Your task to perform on an android device: Clear all items from cart on amazon. Search for usb-c to usb-b on amazon, select the first entry, add it to the cart, then select checkout. Image 0: 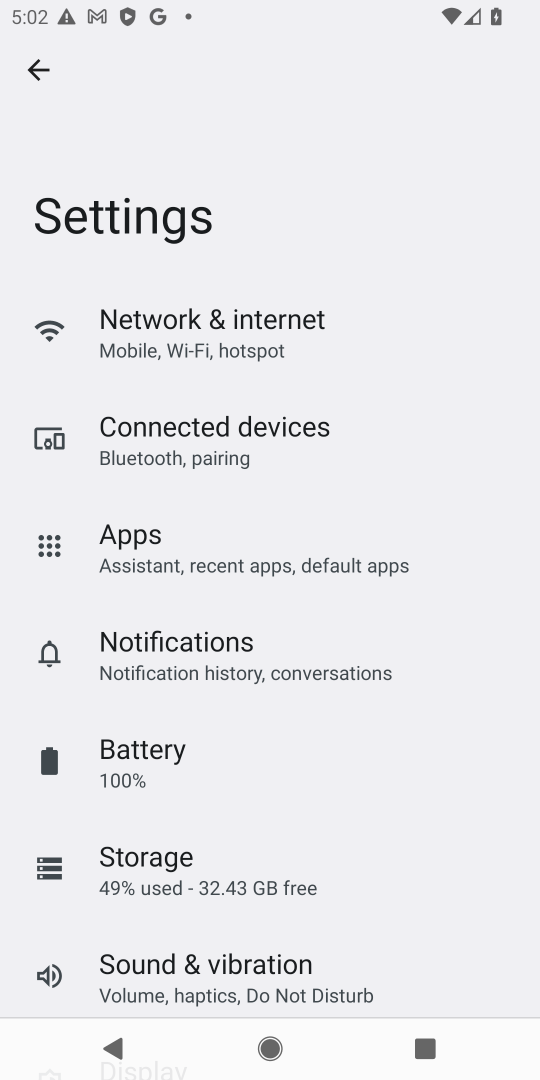
Step 0: press home button
Your task to perform on an android device: Clear all items from cart on amazon. Search for usb-c to usb-b on amazon, select the first entry, add it to the cart, then select checkout. Image 1: 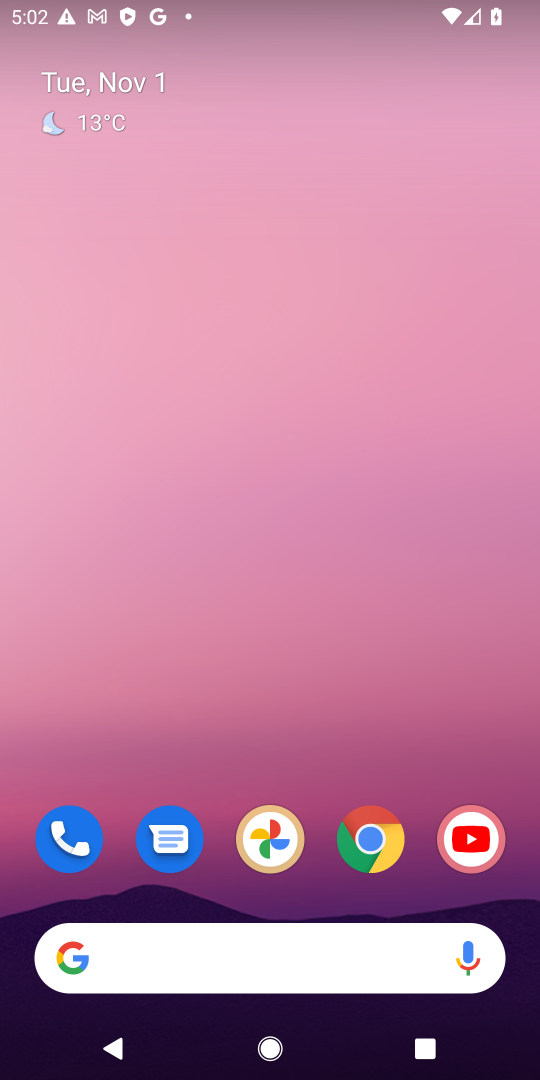
Step 1: drag from (332, 883) to (397, 230)
Your task to perform on an android device: Clear all items from cart on amazon. Search for usb-c to usb-b on amazon, select the first entry, add it to the cart, then select checkout. Image 2: 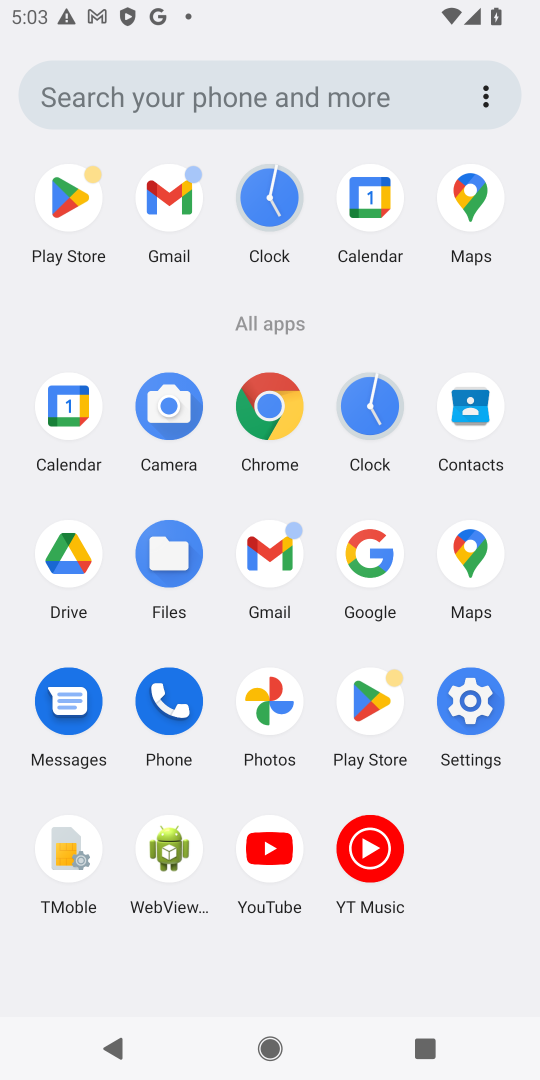
Step 2: click (272, 413)
Your task to perform on an android device: Clear all items from cart on amazon. Search for usb-c to usb-b on amazon, select the first entry, add it to the cart, then select checkout. Image 3: 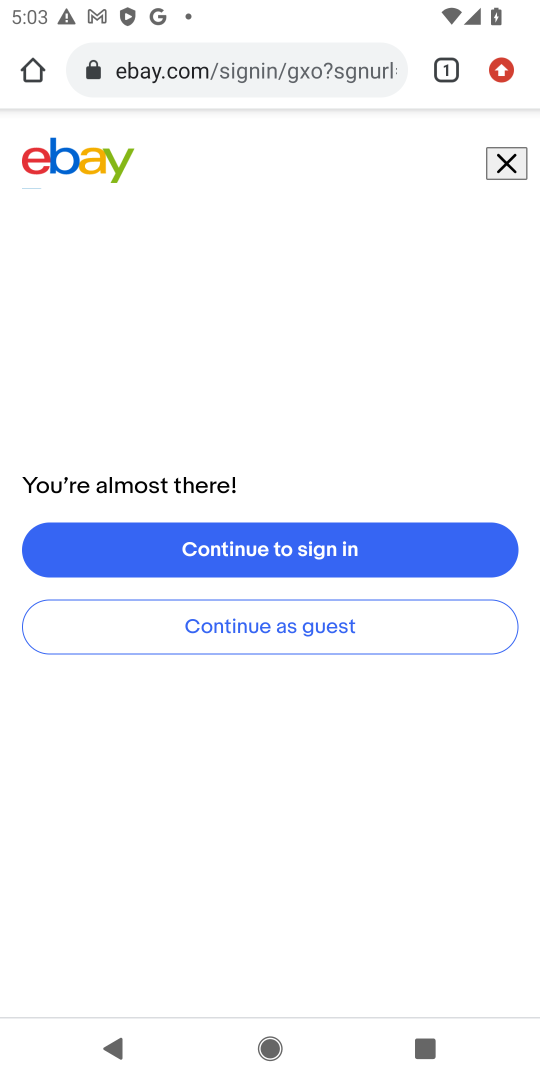
Step 3: click (352, 61)
Your task to perform on an android device: Clear all items from cart on amazon. Search for usb-c to usb-b on amazon, select the first entry, add it to the cart, then select checkout. Image 4: 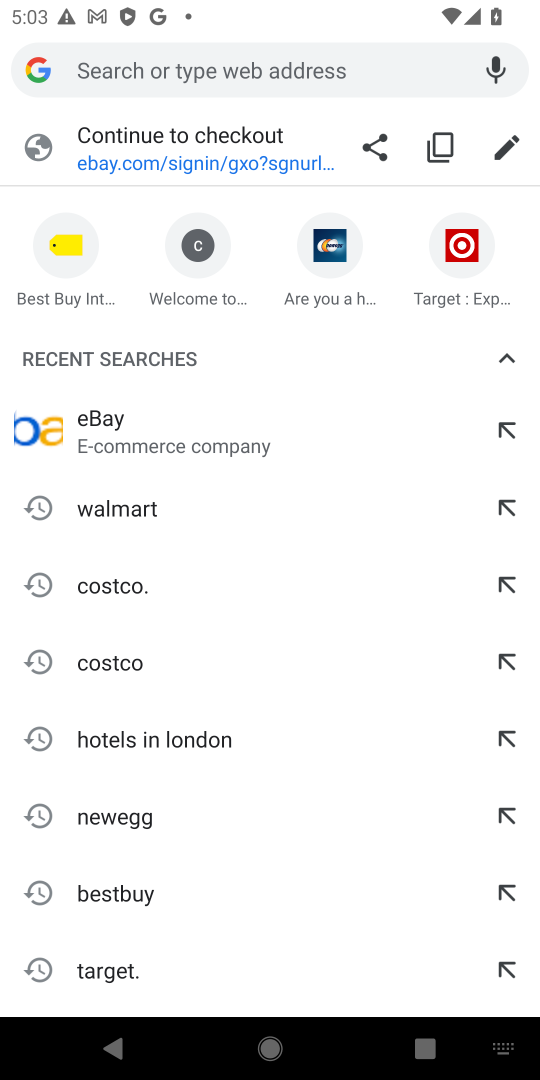
Step 4: type "amazon.com"
Your task to perform on an android device: Clear all items from cart on amazon. Search for usb-c to usb-b on amazon, select the first entry, add it to the cart, then select checkout. Image 5: 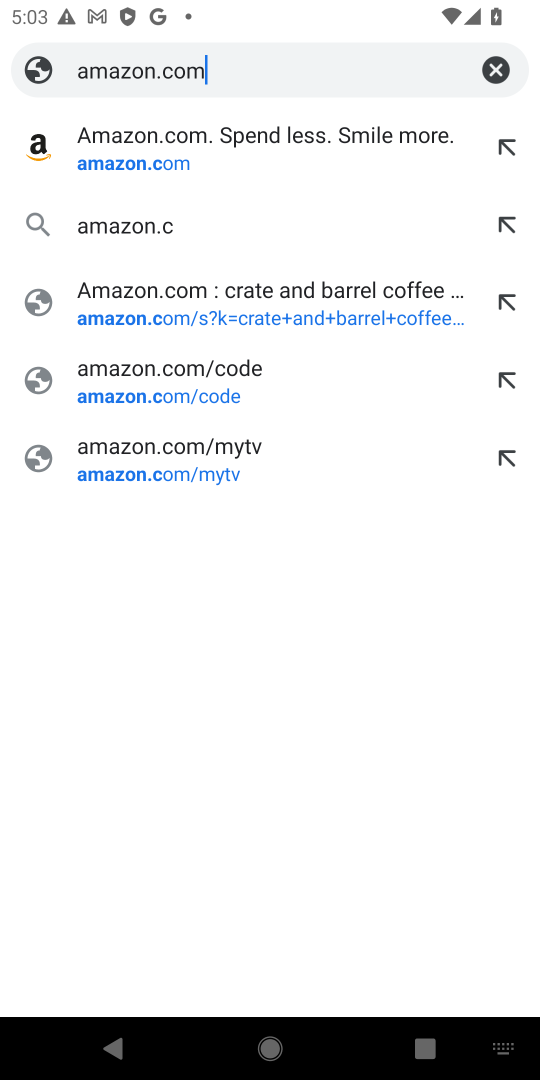
Step 5: press enter
Your task to perform on an android device: Clear all items from cart on amazon. Search for usb-c to usb-b on amazon, select the first entry, add it to the cart, then select checkout. Image 6: 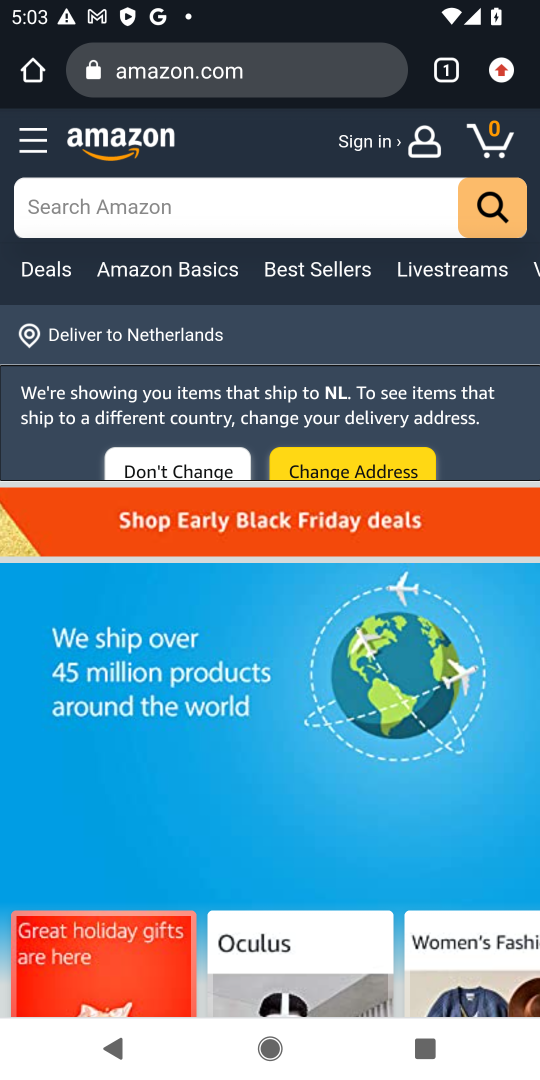
Step 6: click (488, 142)
Your task to perform on an android device: Clear all items from cart on amazon. Search for usb-c to usb-b on amazon, select the first entry, add it to the cart, then select checkout. Image 7: 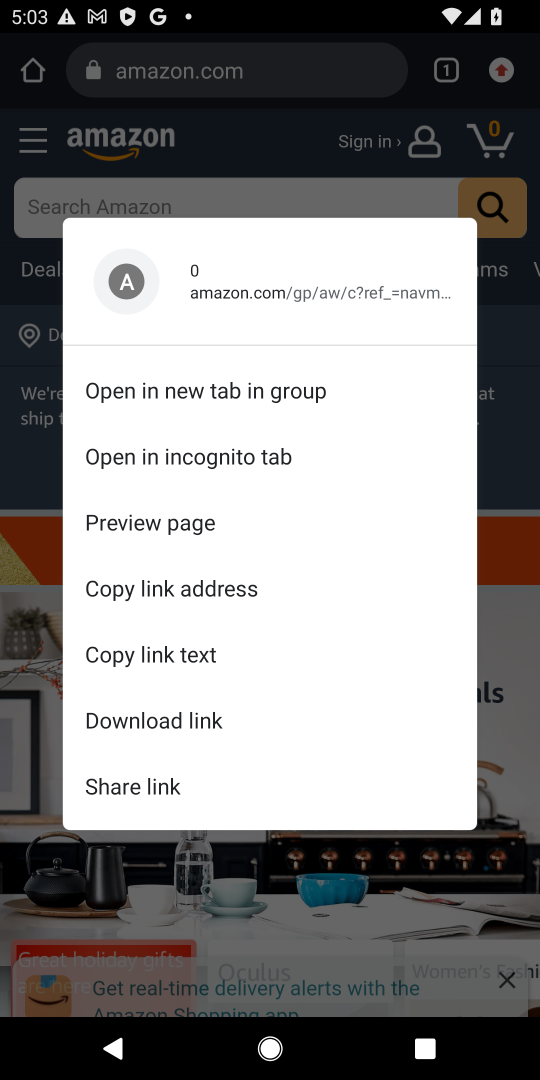
Step 7: click (511, 144)
Your task to perform on an android device: Clear all items from cart on amazon. Search for usb-c to usb-b on amazon, select the first entry, add it to the cart, then select checkout. Image 8: 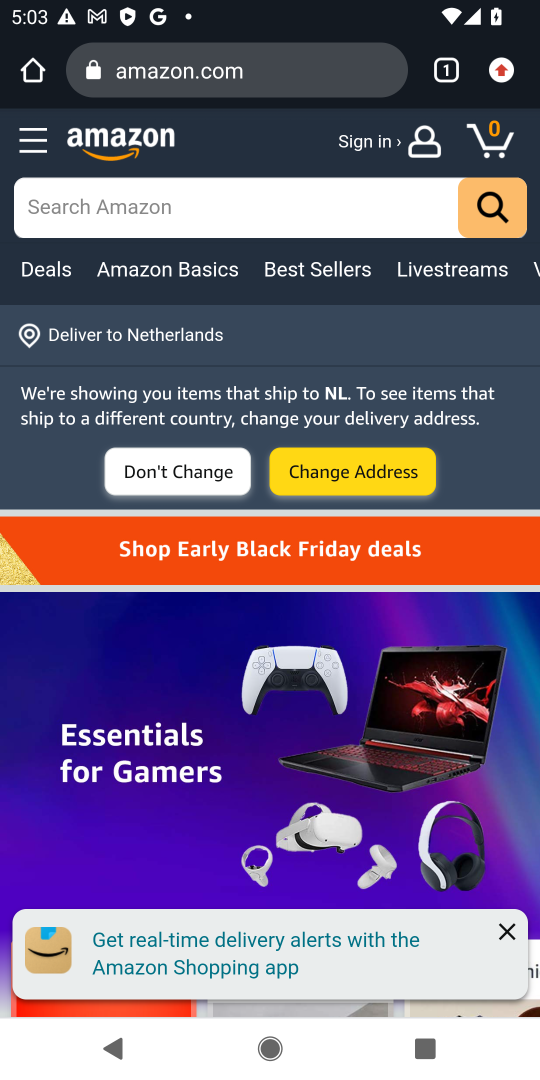
Step 8: click (506, 141)
Your task to perform on an android device: Clear all items from cart on amazon. Search for usb-c to usb-b on amazon, select the first entry, add it to the cart, then select checkout. Image 9: 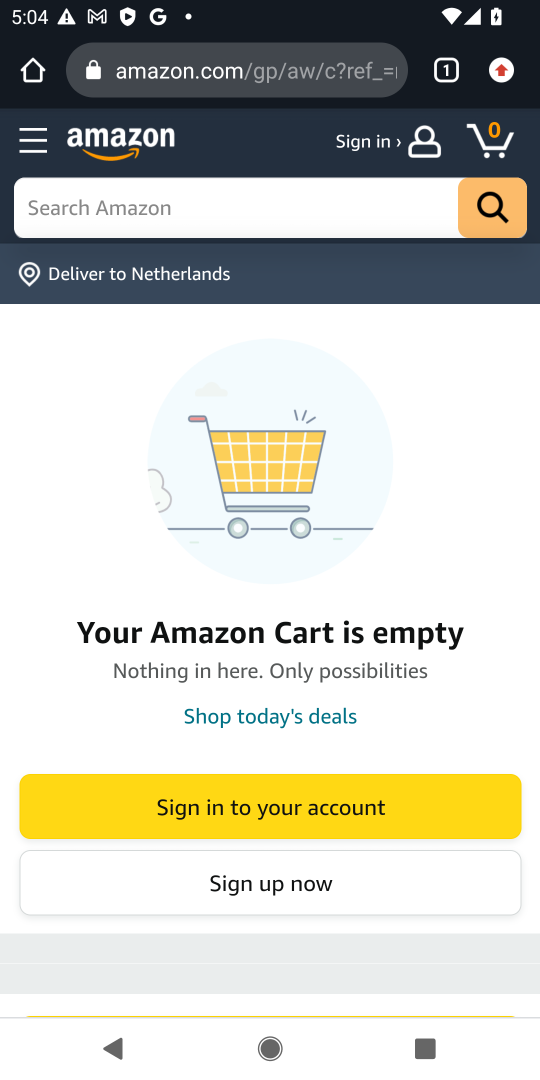
Step 9: click (330, 217)
Your task to perform on an android device: Clear all items from cart on amazon. Search for usb-c to usb-b on amazon, select the first entry, add it to the cart, then select checkout. Image 10: 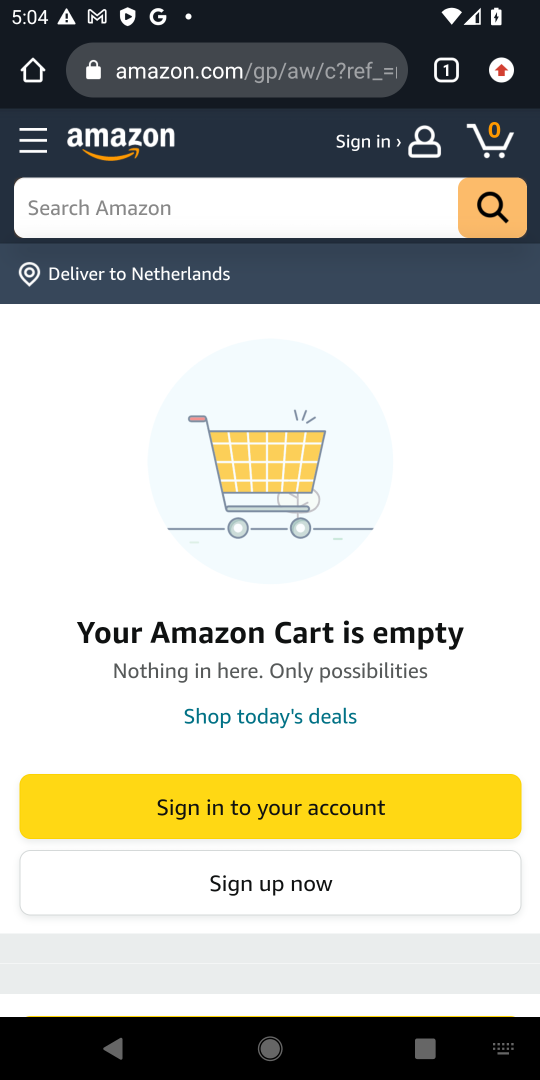
Step 10: type "usb-c to usb-b"
Your task to perform on an android device: Clear all items from cart on amazon. Search for usb-c to usb-b on amazon, select the first entry, add it to the cart, then select checkout. Image 11: 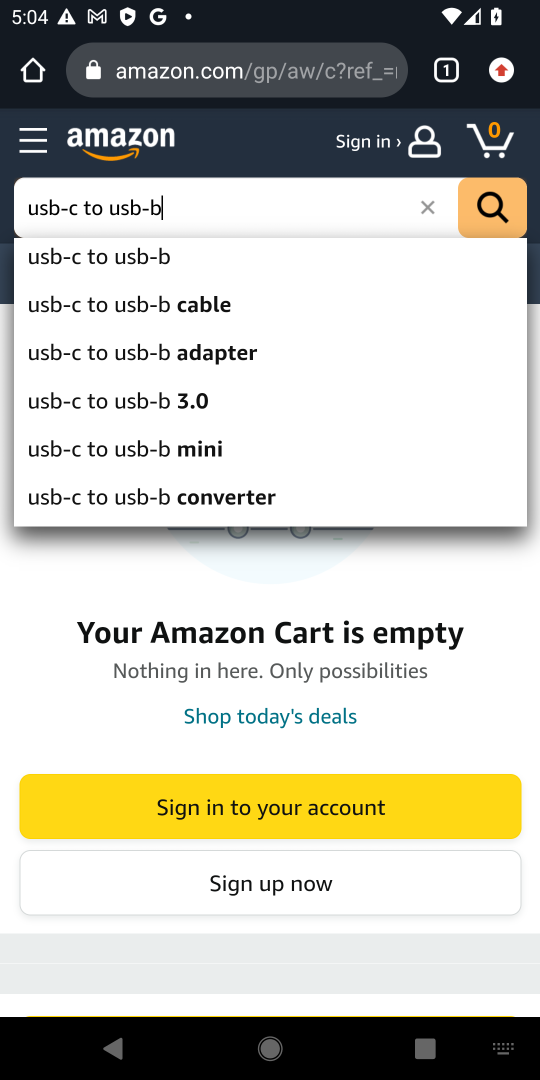
Step 11: press enter
Your task to perform on an android device: Clear all items from cart on amazon. Search for usb-c to usb-b on amazon, select the first entry, add it to the cart, then select checkout. Image 12: 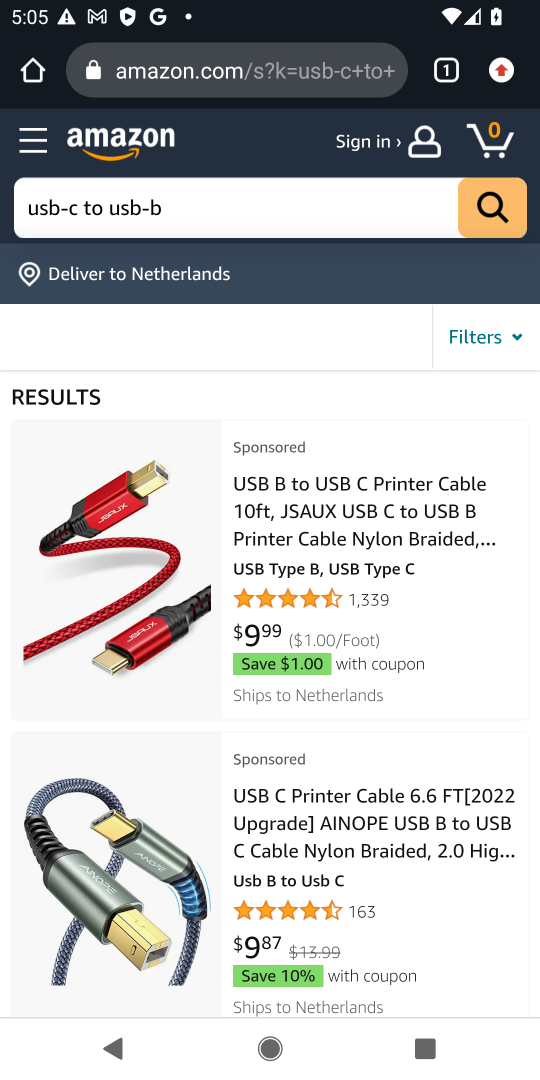
Step 12: drag from (230, 881) to (302, 60)
Your task to perform on an android device: Clear all items from cart on amazon. Search for usb-c to usb-b on amazon, select the first entry, add it to the cart, then select checkout. Image 13: 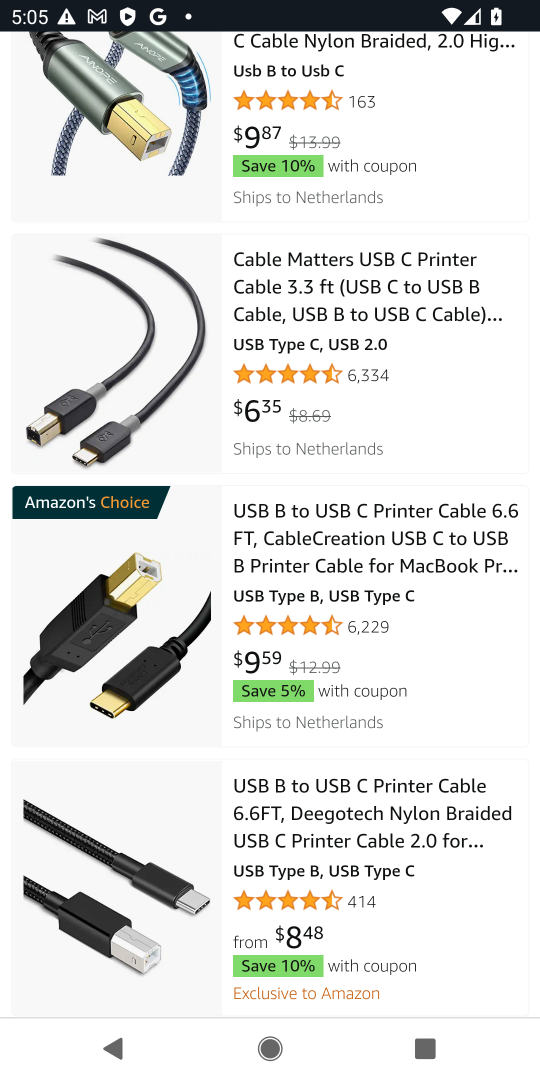
Step 13: drag from (280, 912) to (415, 339)
Your task to perform on an android device: Clear all items from cart on amazon. Search for usb-c to usb-b on amazon, select the first entry, add it to the cart, then select checkout. Image 14: 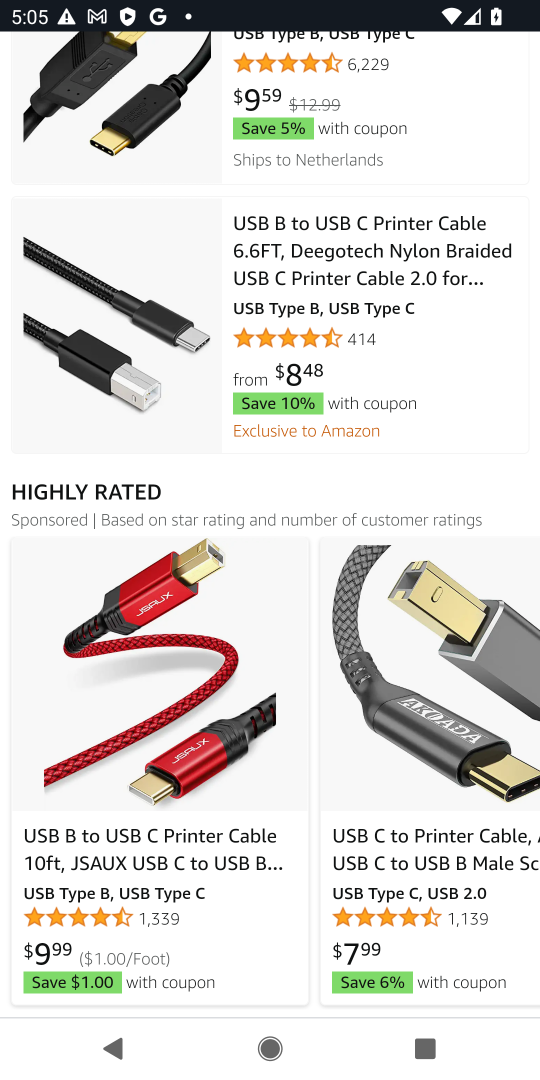
Step 14: drag from (254, 858) to (311, 471)
Your task to perform on an android device: Clear all items from cart on amazon. Search for usb-c to usb-b on amazon, select the first entry, add it to the cart, then select checkout. Image 15: 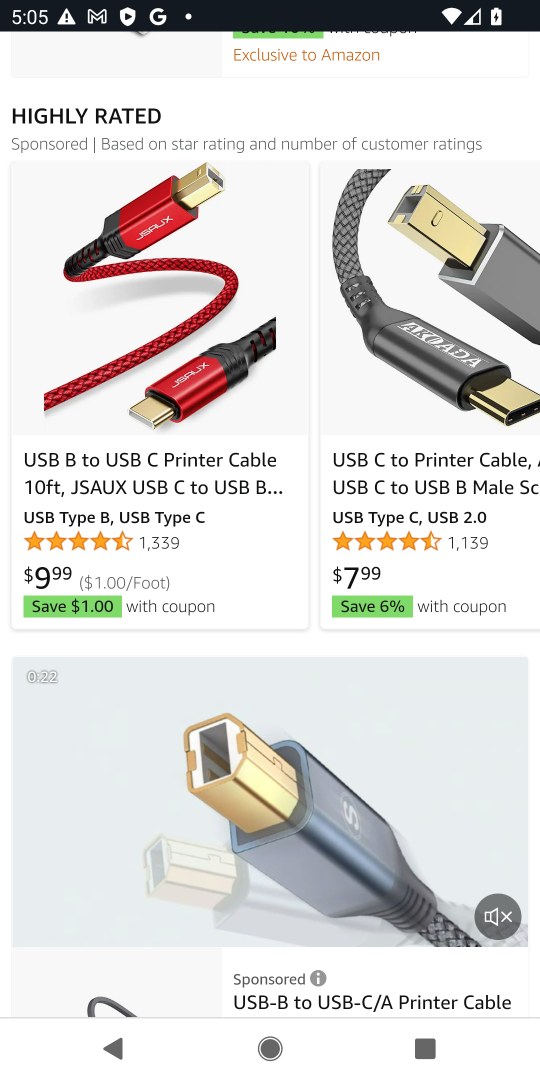
Step 15: drag from (410, 493) to (187, 675)
Your task to perform on an android device: Clear all items from cart on amazon. Search for usb-c to usb-b on amazon, select the first entry, add it to the cart, then select checkout. Image 16: 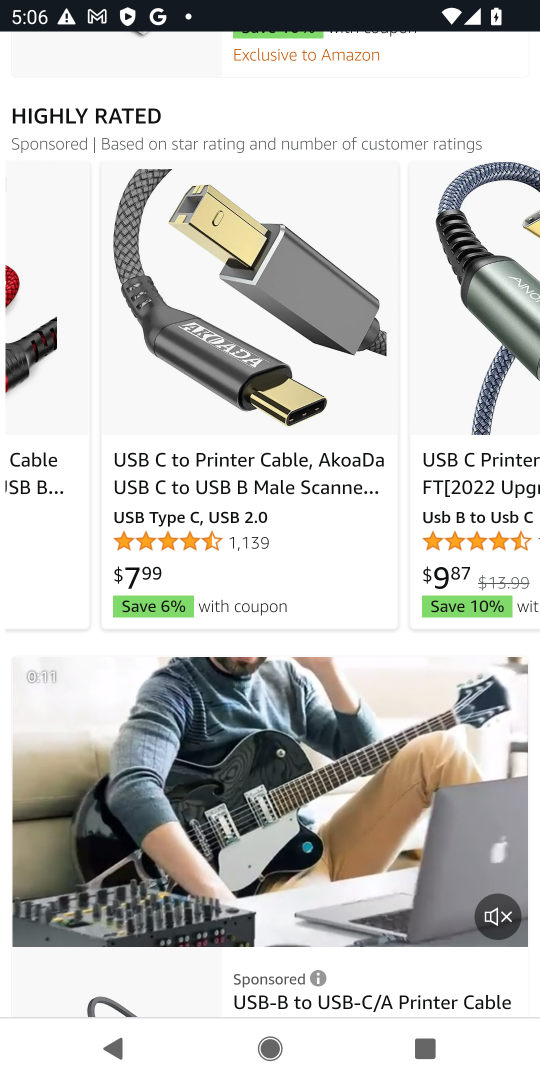
Step 16: drag from (255, 662) to (261, 571)
Your task to perform on an android device: Clear all items from cart on amazon. Search for usb-c to usb-b on amazon, select the first entry, add it to the cart, then select checkout. Image 17: 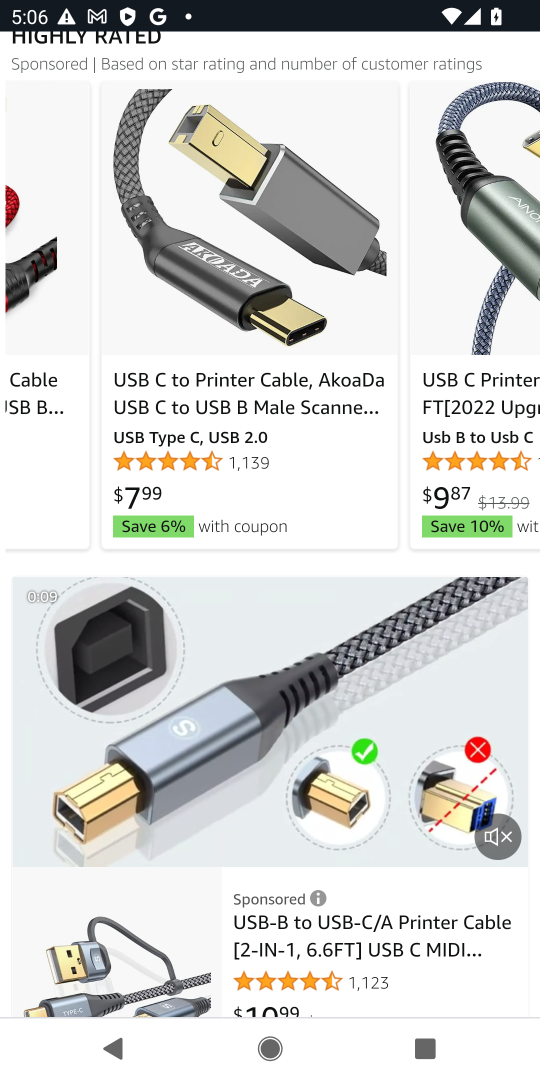
Step 17: drag from (360, 381) to (103, 361)
Your task to perform on an android device: Clear all items from cart on amazon. Search for usb-c to usb-b on amazon, select the first entry, add it to the cart, then select checkout. Image 18: 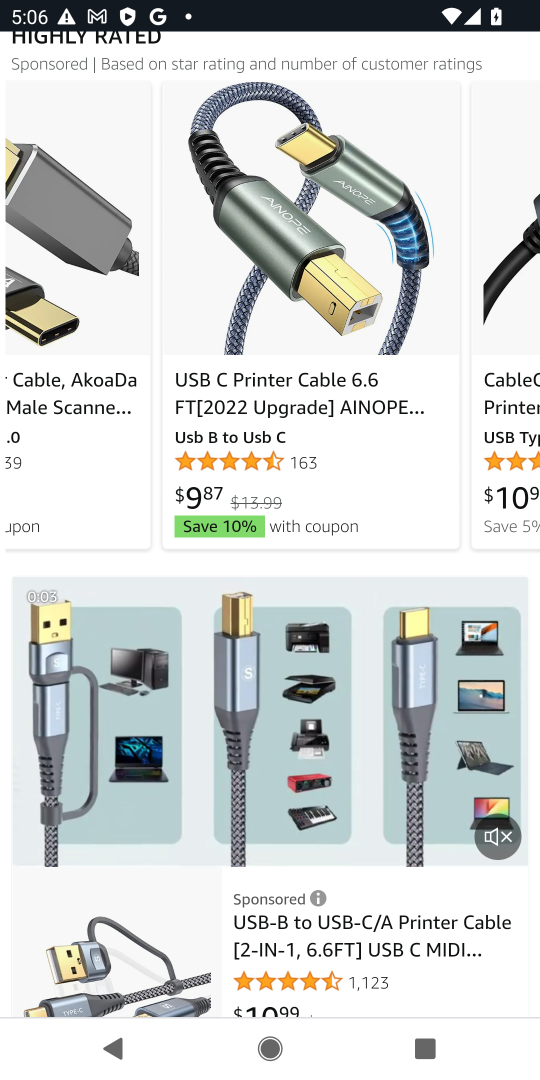
Step 18: drag from (276, 720) to (415, 108)
Your task to perform on an android device: Clear all items from cart on amazon. Search for usb-c to usb-b on amazon, select the first entry, add it to the cart, then select checkout. Image 19: 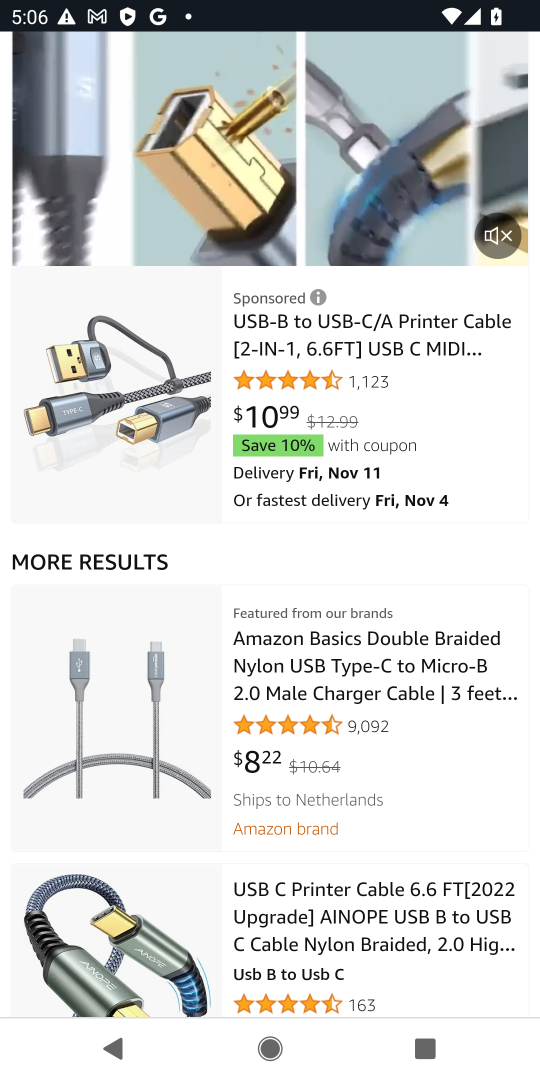
Step 19: drag from (332, 149) to (213, 729)
Your task to perform on an android device: Clear all items from cart on amazon. Search for usb-c to usb-b on amazon, select the first entry, add it to the cart, then select checkout. Image 20: 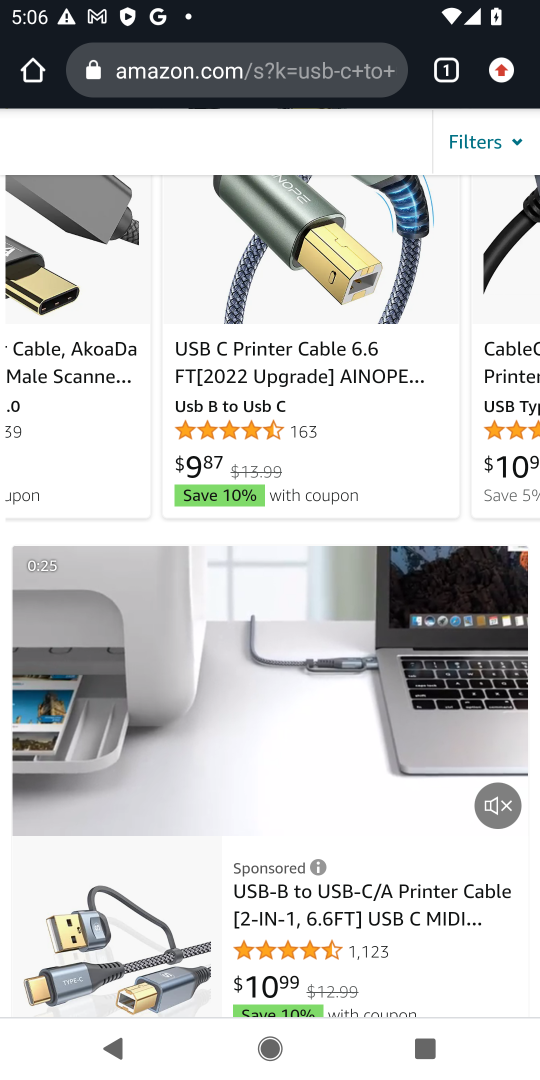
Step 20: drag from (284, 359) to (287, 738)
Your task to perform on an android device: Clear all items from cart on amazon. Search for usb-c to usb-b on amazon, select the first entry, add it to the cart, then select checkout. Image 21: 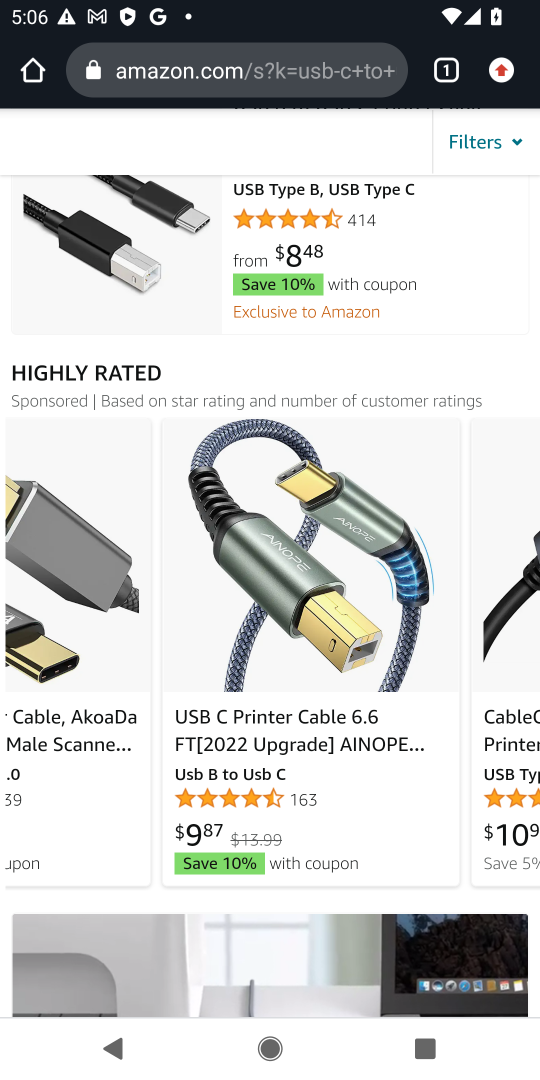
Step 21: drag from (327, 360) to (393, 777)
Your task to perform on an android device: Clear all items from cart on amazon. Search for usb-c to usb-b on amazon, select the first entry, add it to the cart, then select checkout. Image 22: 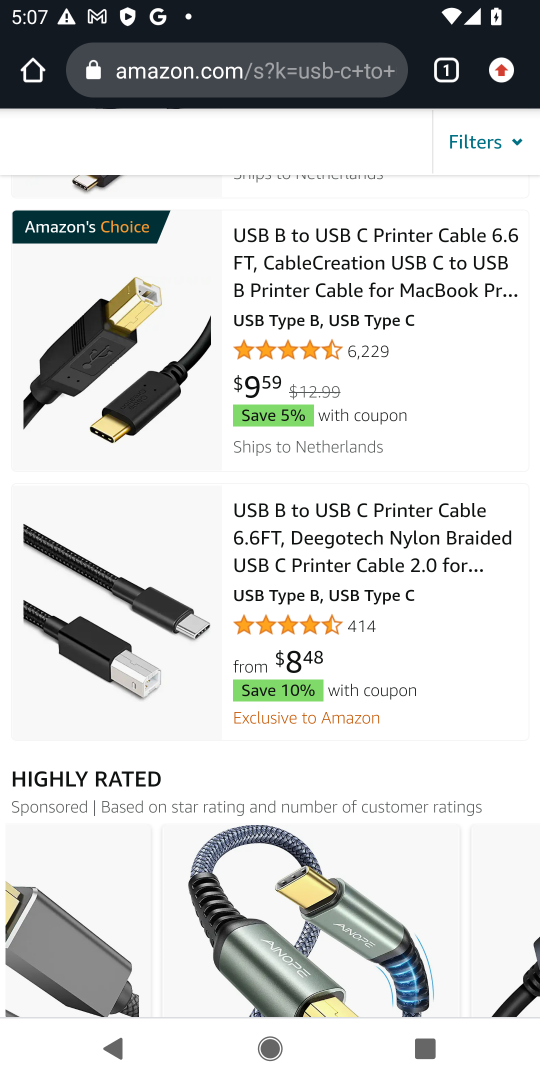
Step 22: drag from (395, 281) to (304, 598)
Your task to perform on an android device: Clear all items from cart on amazon. Search for usb-c to usb-b on amazon, select the first entry, add it to the cart, then select checkout. Image 23: 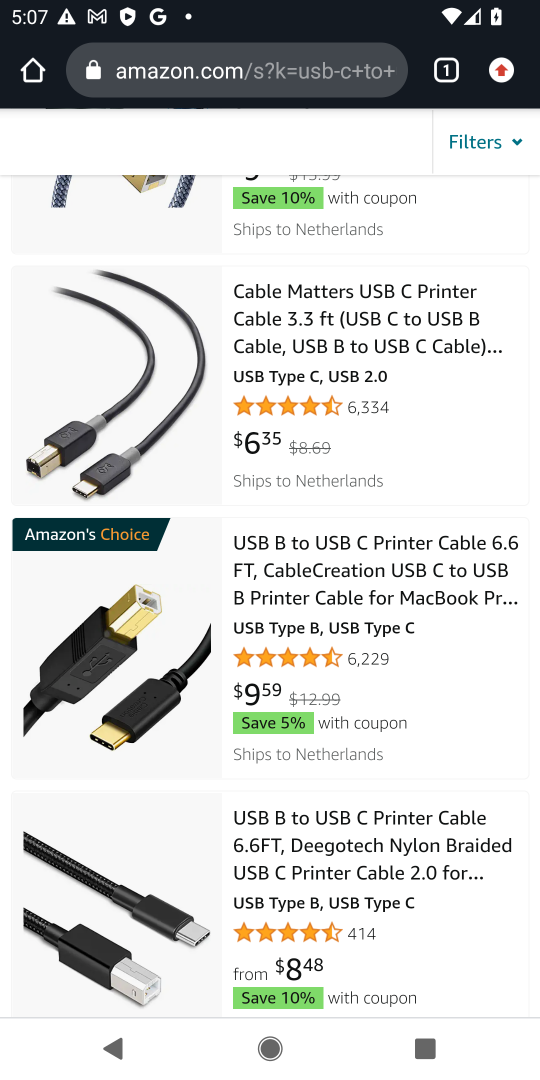
Step 23: drag from (331, 268) to (272, 589)
Your task to perform on an android device: Clear all items from cart on amazon. Search for usb-c to usb-b on amazon, select the first entry, add it to the cart, then select checkout. Image 24: 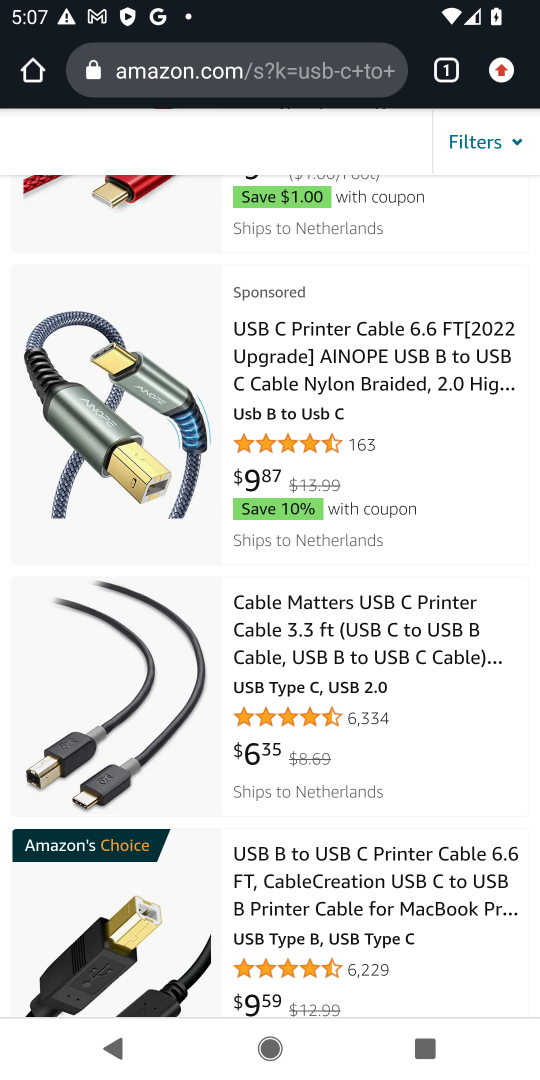
Step 24: drag from (310, 237) to (340, 60)
Your task to perform on an android device: Clear all items from cart on amazon. Search for usb-c to usb-b on amazon, select the first entry, add it to the cart, then select checkout. Image 25: 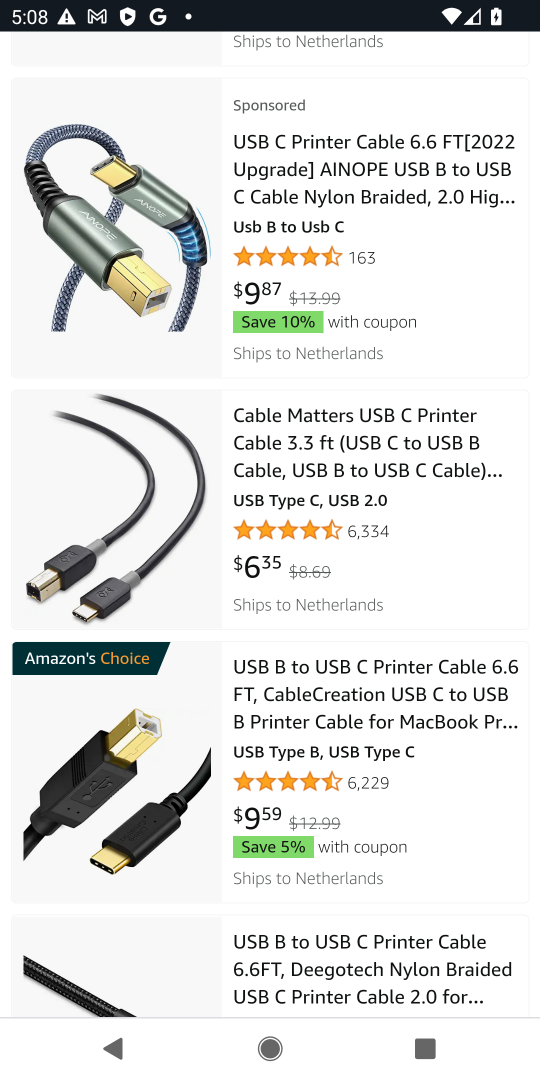
Step 25: drag from (323, 834) to (346, 541)
Your task to perform on an android device: Clear all items from cart on amazon. Search for usb-c to usb-b on amazon, select the first entry, add it to the cart, then select checkout. Image 26: 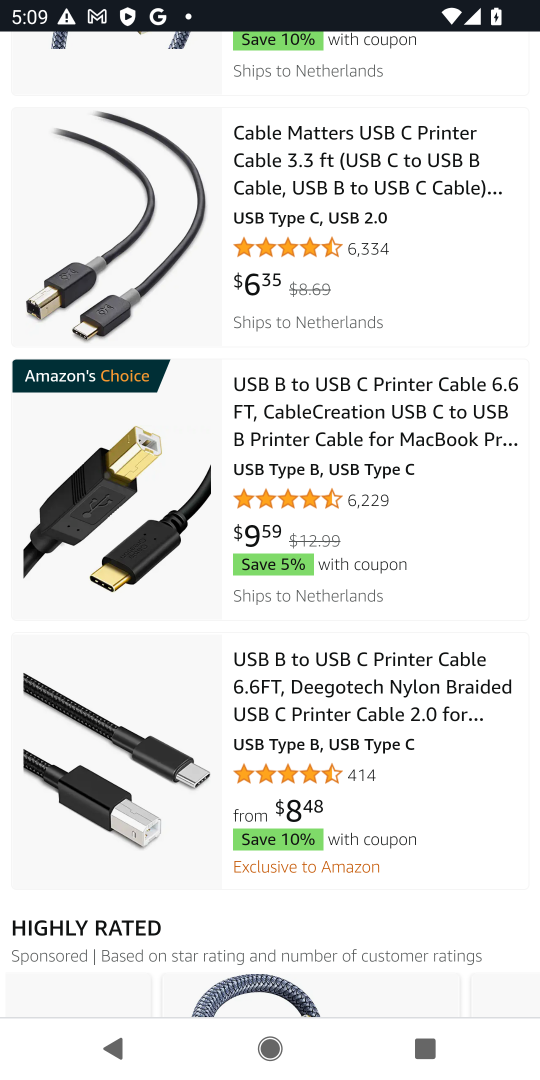
Step 26: drag from (336, 217) to (351, 737)
Your task to perform on an android device: Clear all items from cart on amazon. Search for usb-c to usb-b on amazon, select the first entry, add it to the cart, then select checkout. Image 27: 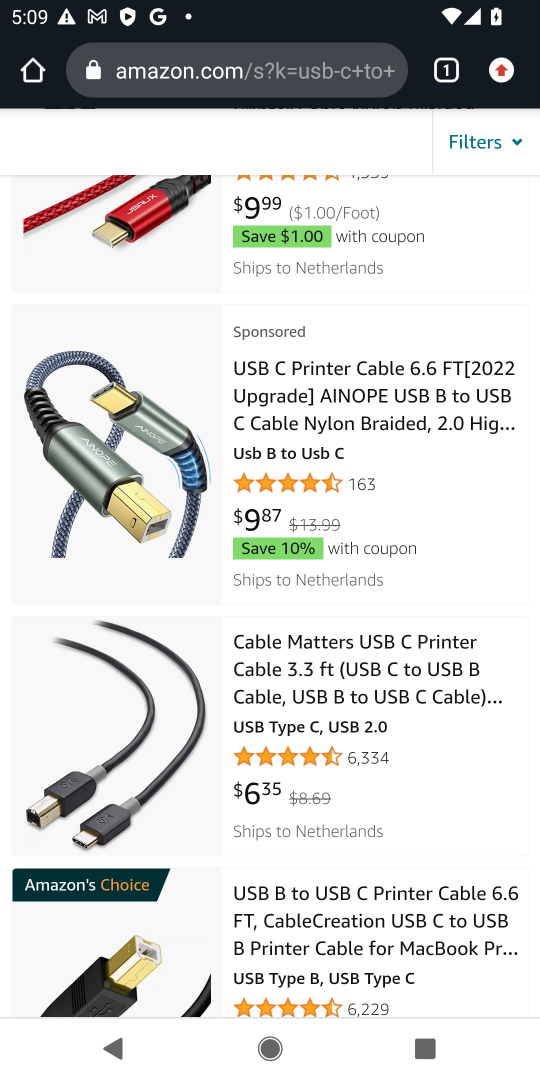
Step 27: click (109, 723)
Your task to perform on an android device: Clear all items from cart on amazon. Search for usb-c to usb-b on amazon, select the first entry, add it to the cart, then select checkout. Image 28: 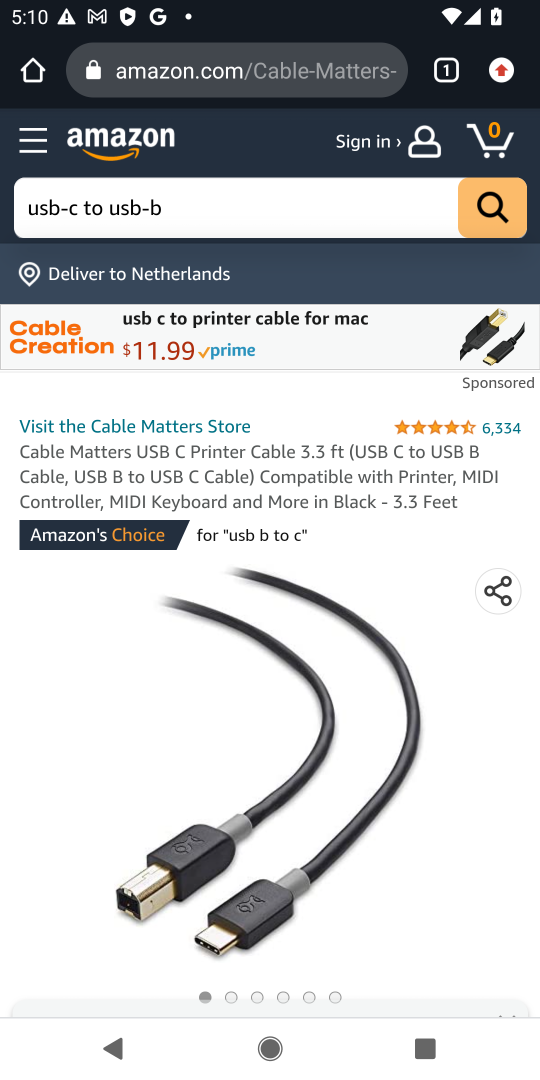
Step 28: drag from (276, 850) to (416, 209)
Your task to perform on an android device: Clear all items from cart on amazon. Search for usb-c to usb-b on amazon, select the first entry, add it to the cart, then select checkout. Image 29: 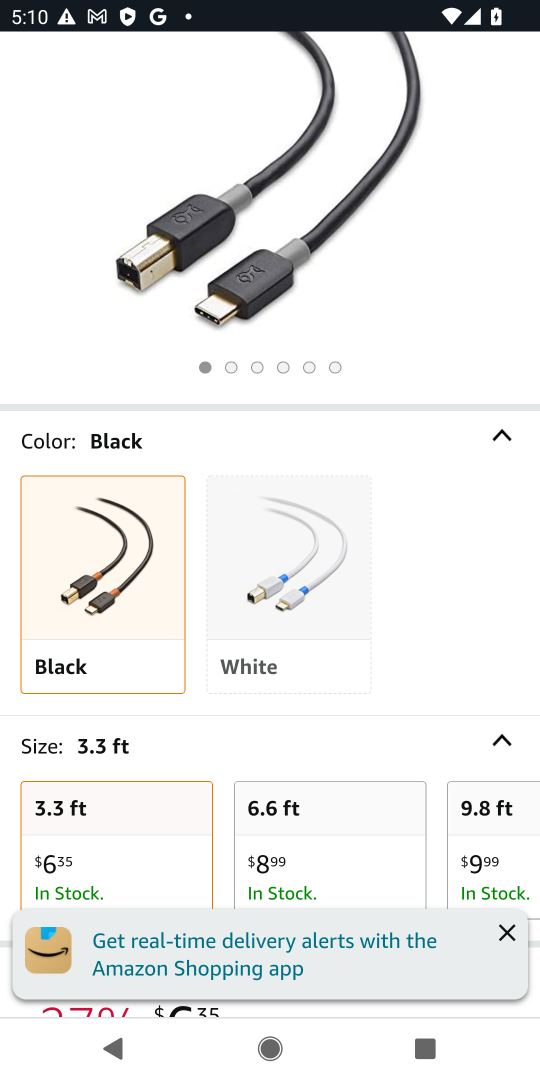
Step 29: drag from (204, 703) to (388, 110)
Your task to perform on an android device: Clear all items from cart on amazon. Search for usb-c to usb-b on amazon, select the first entry, add it to the cart, then select checkout. Image 30: 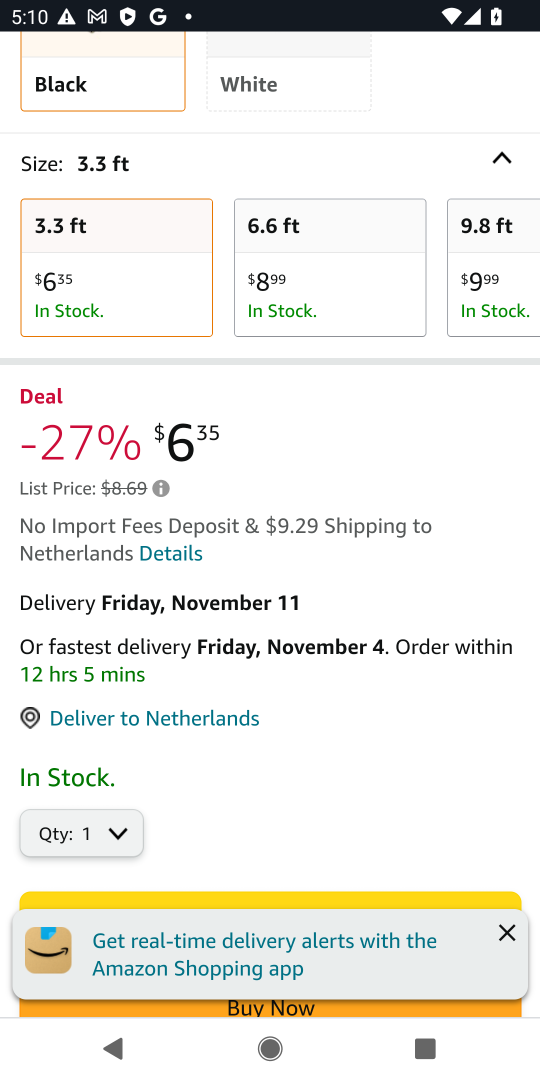
Step 30: drag from (360, 700) to (387, 102)
Your task to perform on an android device: Clear all items from cart on amazon. Search for usb-c to usb-b on amazon, select the first entry, add it to the cart, then select checkout. Image 31: 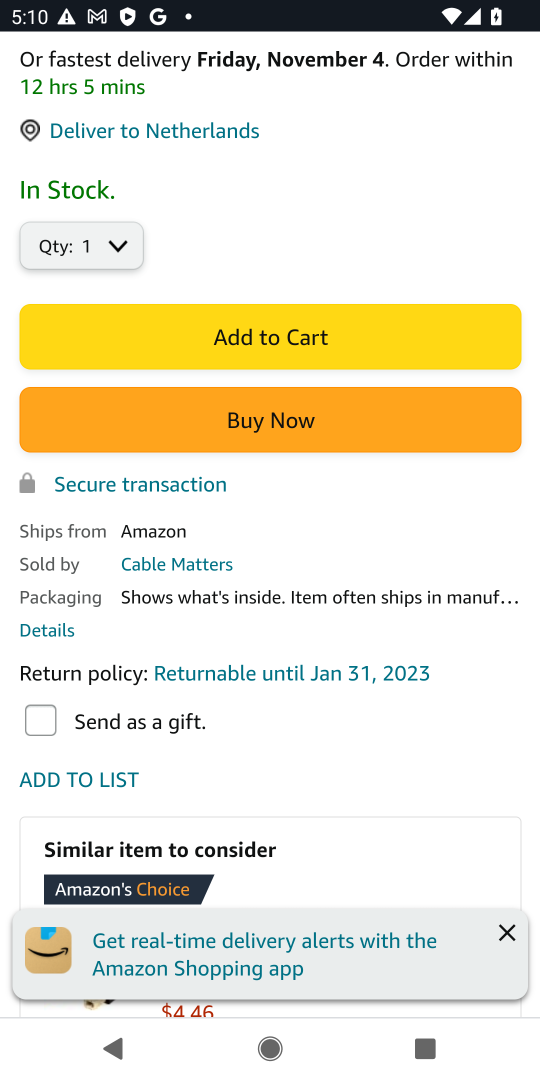
Step 31: click (331, 331)
Your task to perform on an android device: Clear all items from cart on amazon. Search for usb-c to usb-b on amazon, select the first entry, add it to the cart, then select checkout. Image 32: 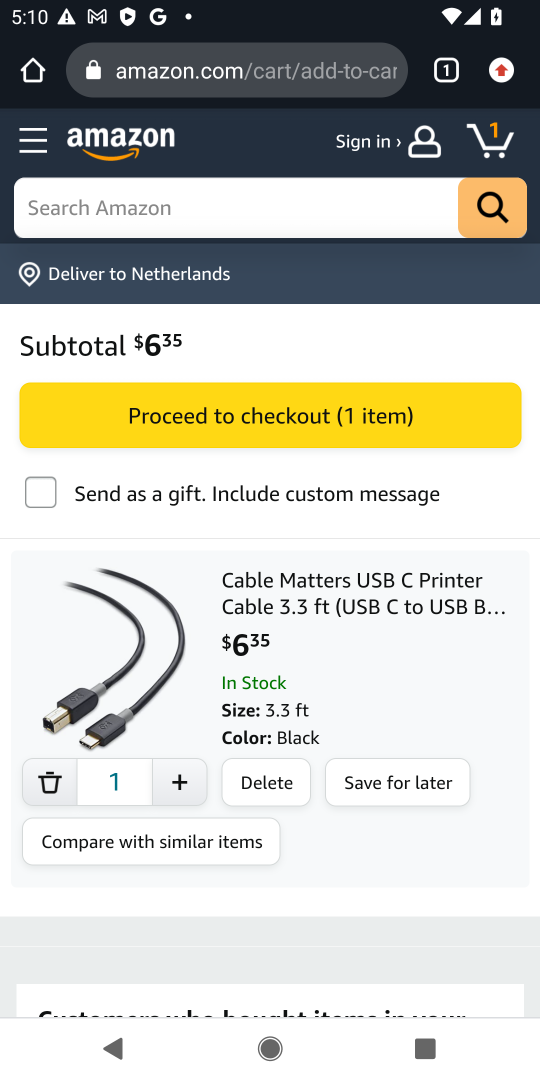
Step 32: drag from (476, 759) to (478, 699)
Your task to perform on an android device: Clear all items from cart on amazon. Search for usb-c to usb-b on amazon, select the first entry, add it to the cart, then select checkout. Image 33: 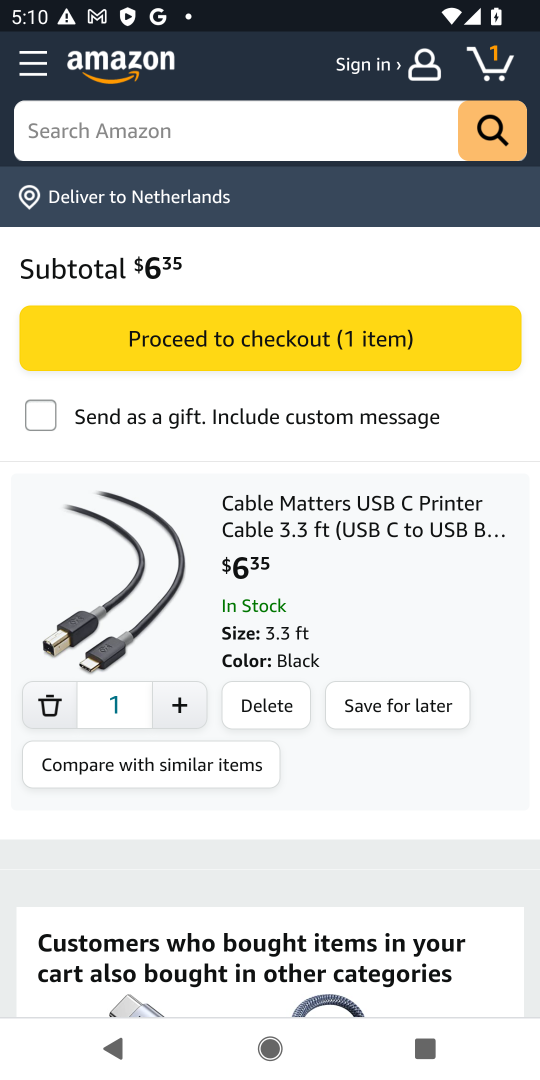
Step 33: click (374, 341)
Your task to perform on an android device: Clear all items from cart on amazon. Search for usb-c to usb-b on amazon, select the first entry, add it to the cart, then select checkout. Image 34: 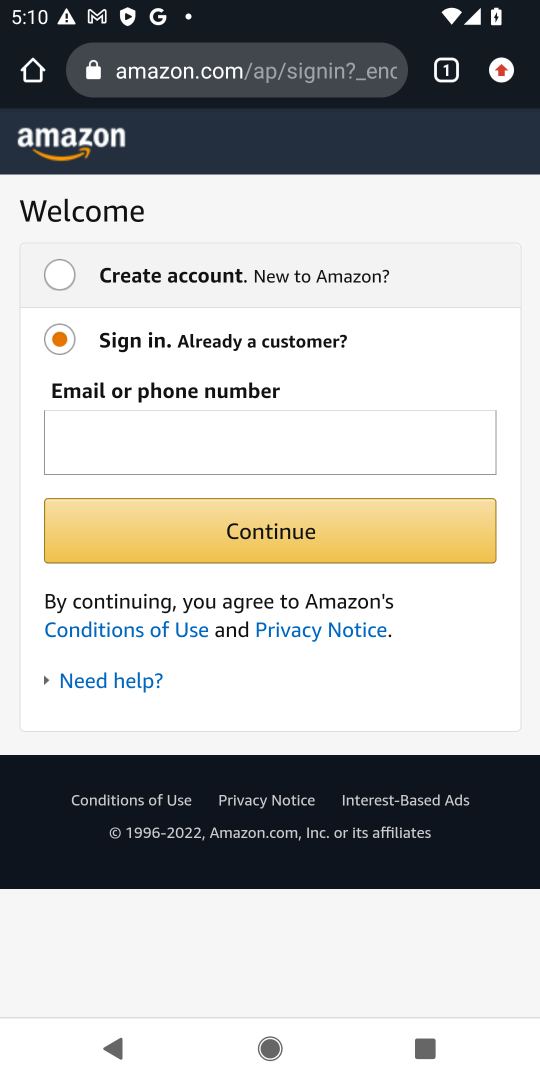
Step 34: task complete